Your task to perform on an android device: toggle priority inbox in the gmail app Image 0: 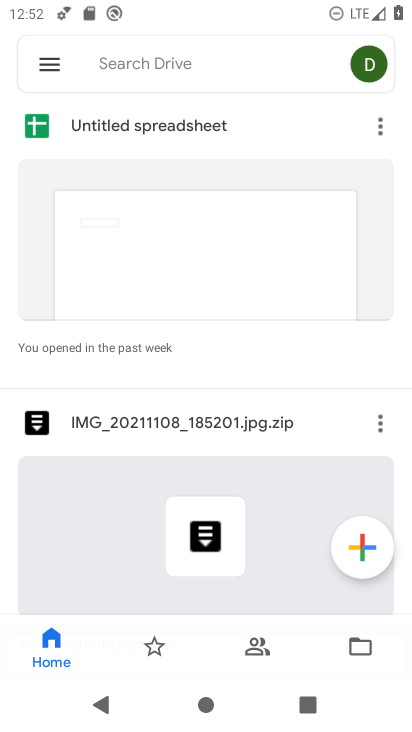
Step 0: press home button
Your task to perform on an android device: toggle priority inbox in the gmail app Image 1: 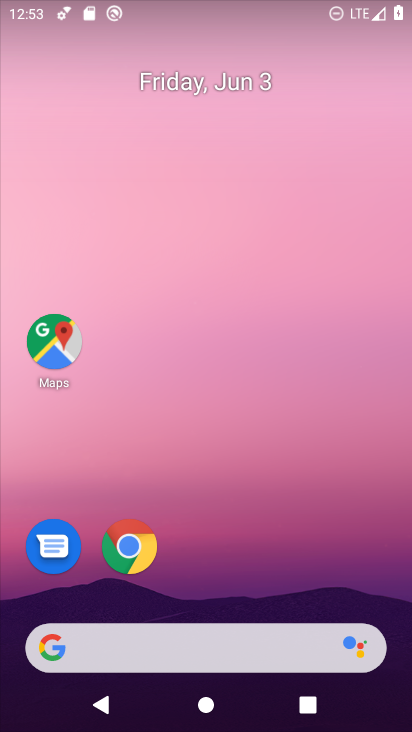
Step 1: drag from (242, 520) to (243, 203)
Your task to perform on an android device: toggle priority inbox in the gmail app Image 2: 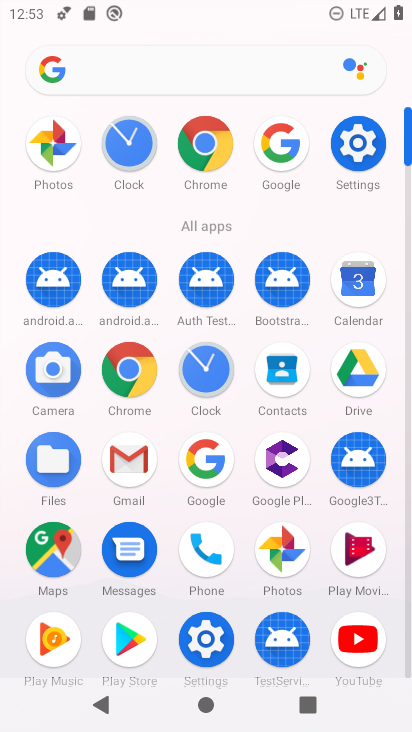
Step 2: click (131, 453)
Your task to perform on an android device: toggle priority inbox in the gmail app Image 3: 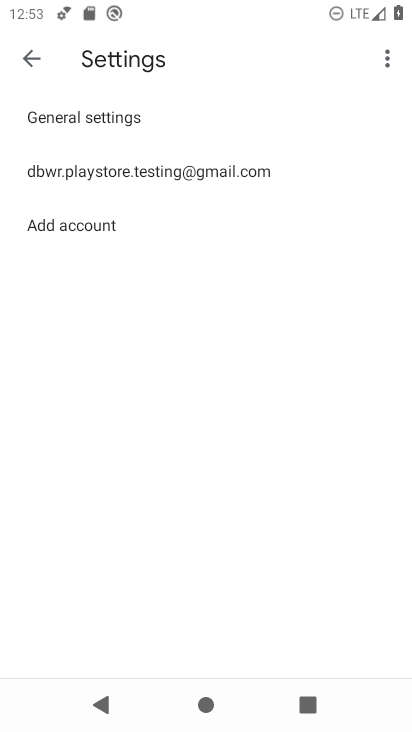
Step 3: click (238, 165)
Your task to perform on an android device: toggle priority inbox in the gmail app Image 4: 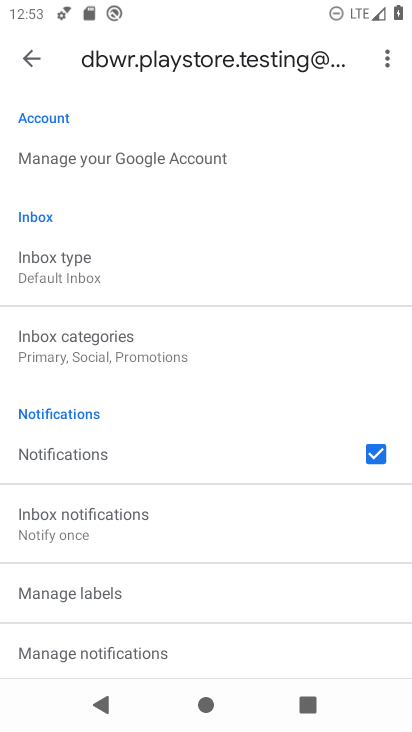
Step 4: click (108, 277)
Your task to perform on an android device: toggle priority inbox in the gmail app Image 5: 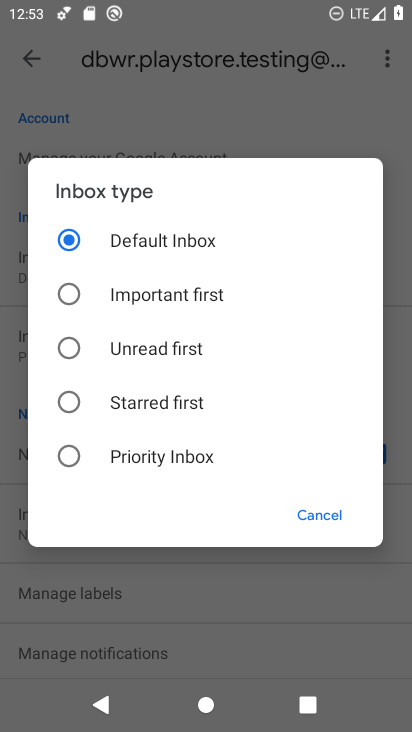
Step 5: click (69, 456)
Your task to perform on an android device: toggle priority inbox in the gmail app Image 6: 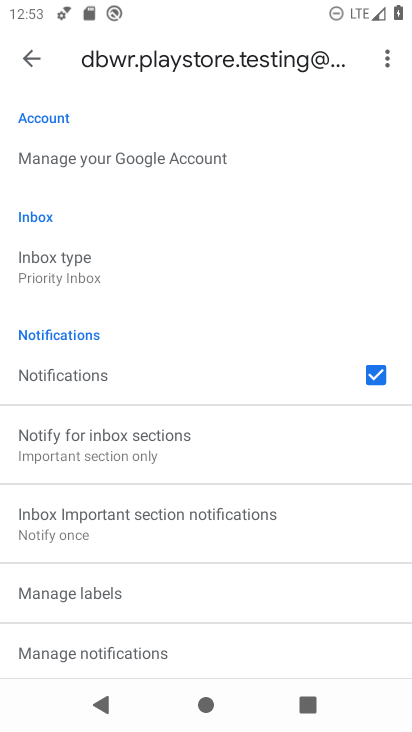
Step 6: task complete